Your task to perform on an android device: change the clock style Image 0: 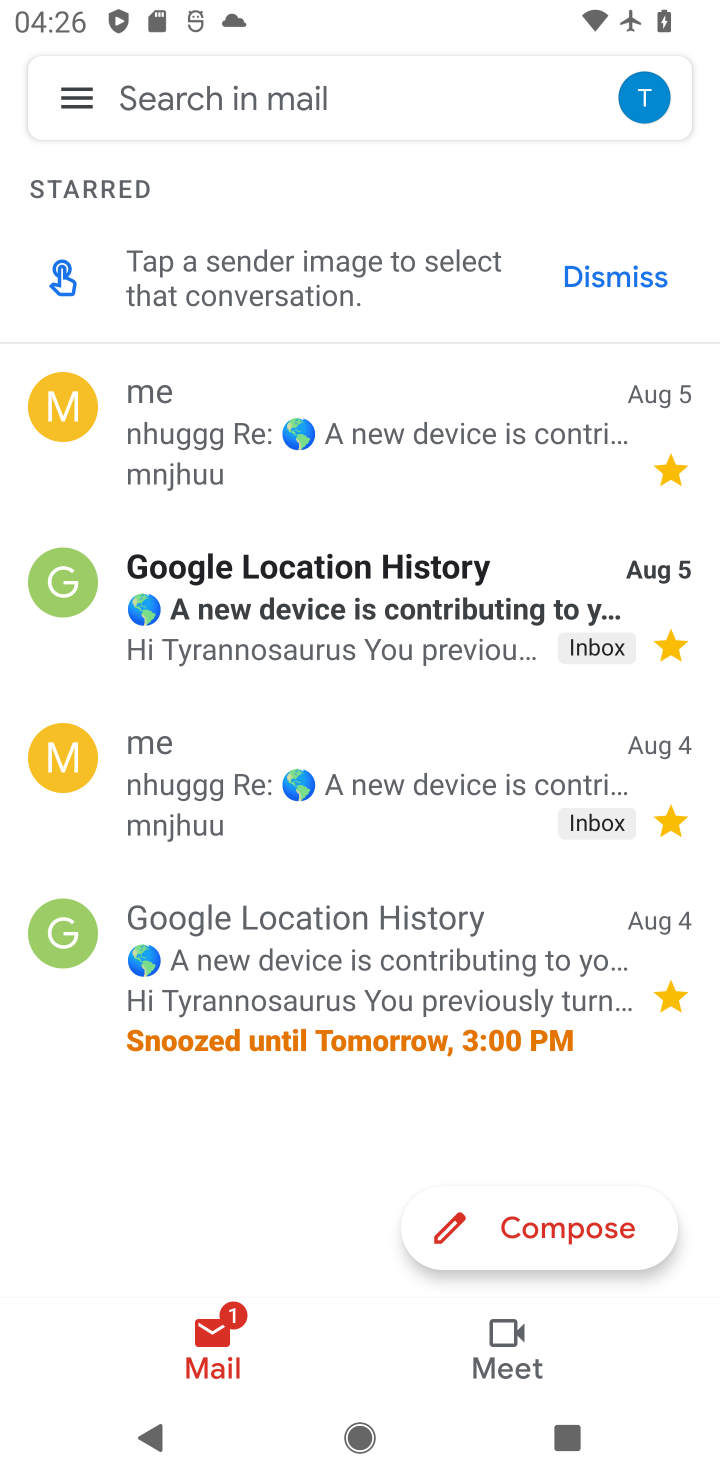
Step 0: press home button
Your task to perform on an android device: change the clock style Image 1: 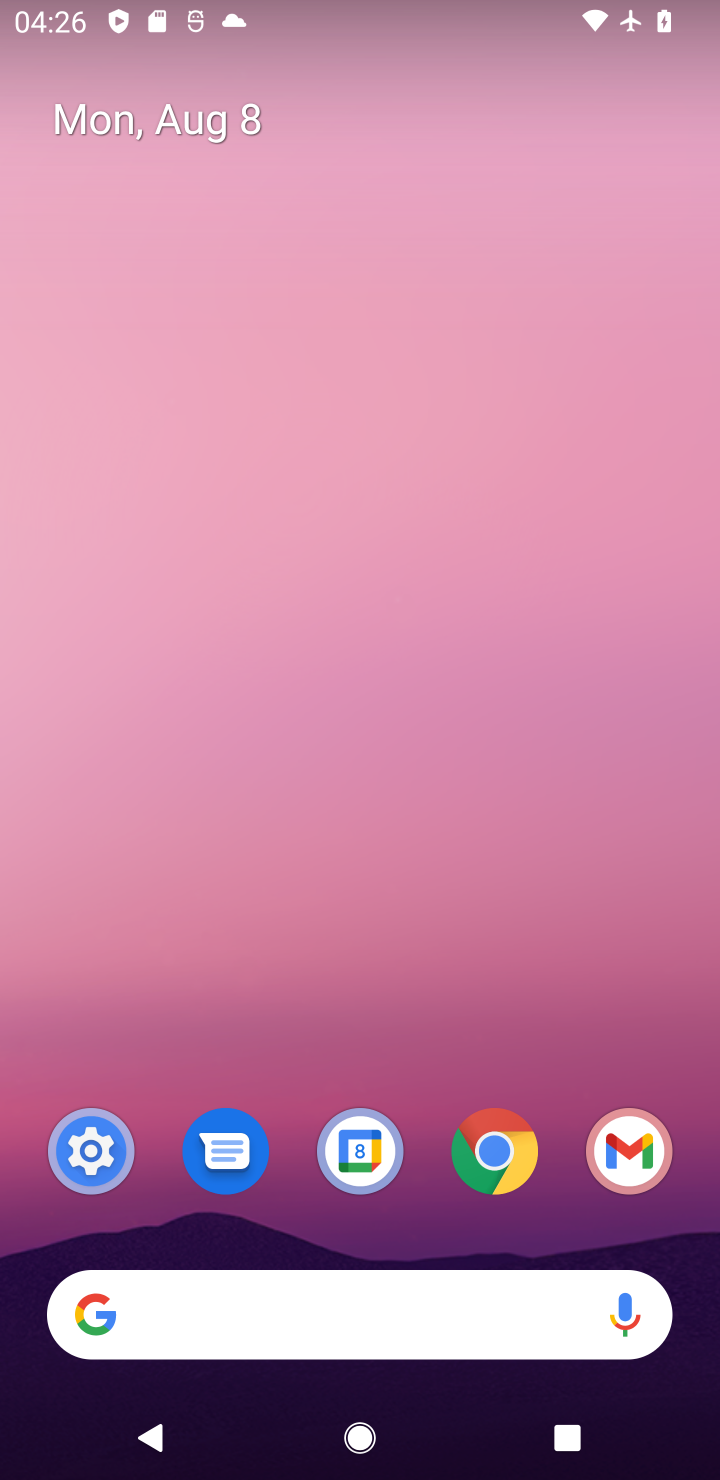
Step 1: drag from (347, 804) to (328, 300)
Your task to perform on an android device: change the clock style Image 2: 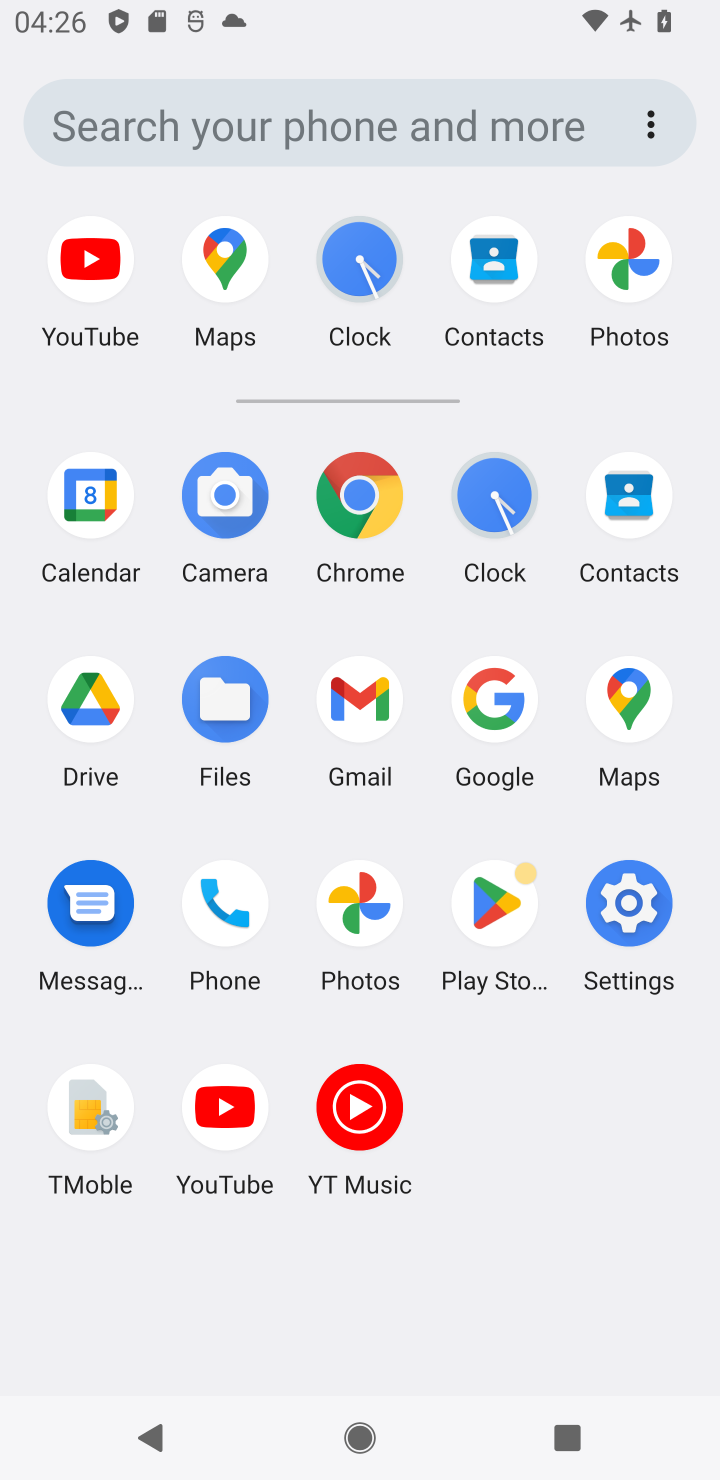
Step 2: click (328, 300)
Your task to perform on an android device: change the clock style Image 3: 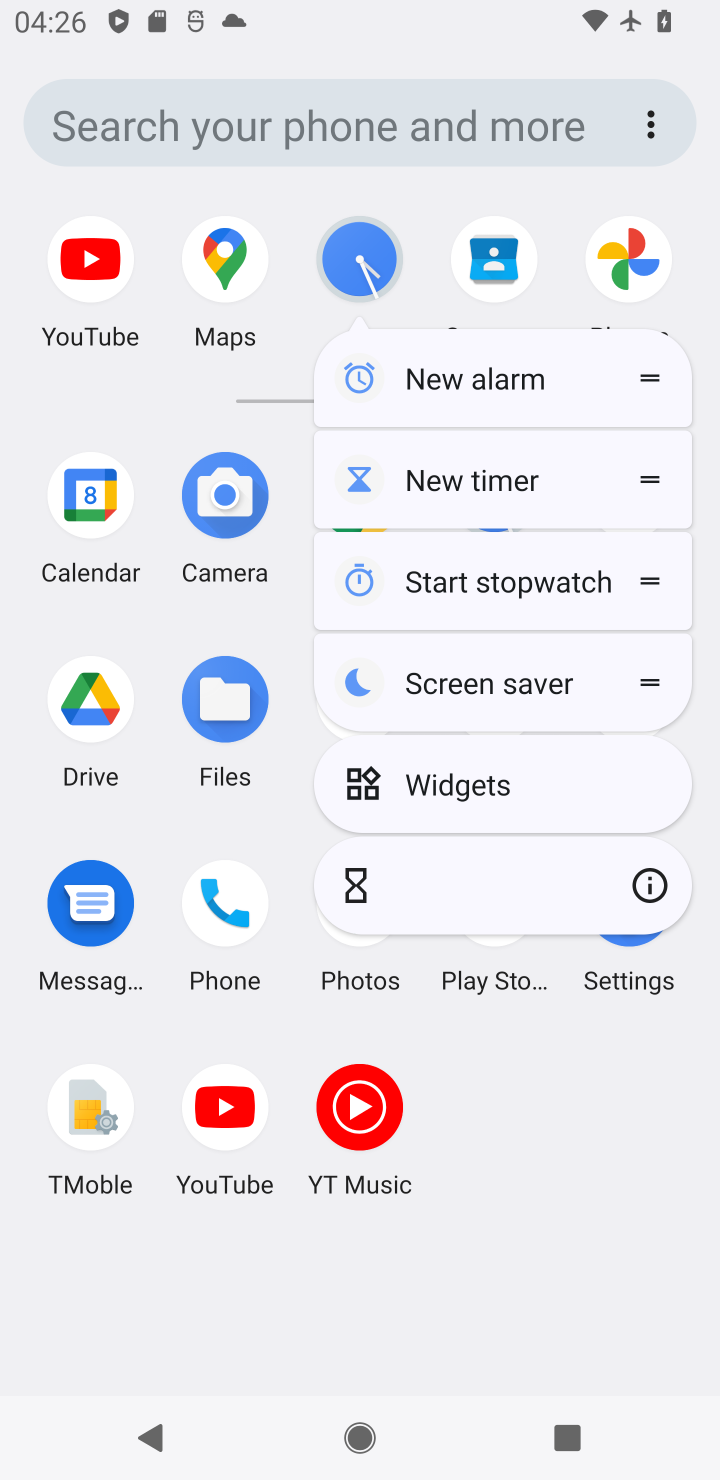
Step 3: click (359, 289)
Your task to perform on an android device: change the clock style Image 4: 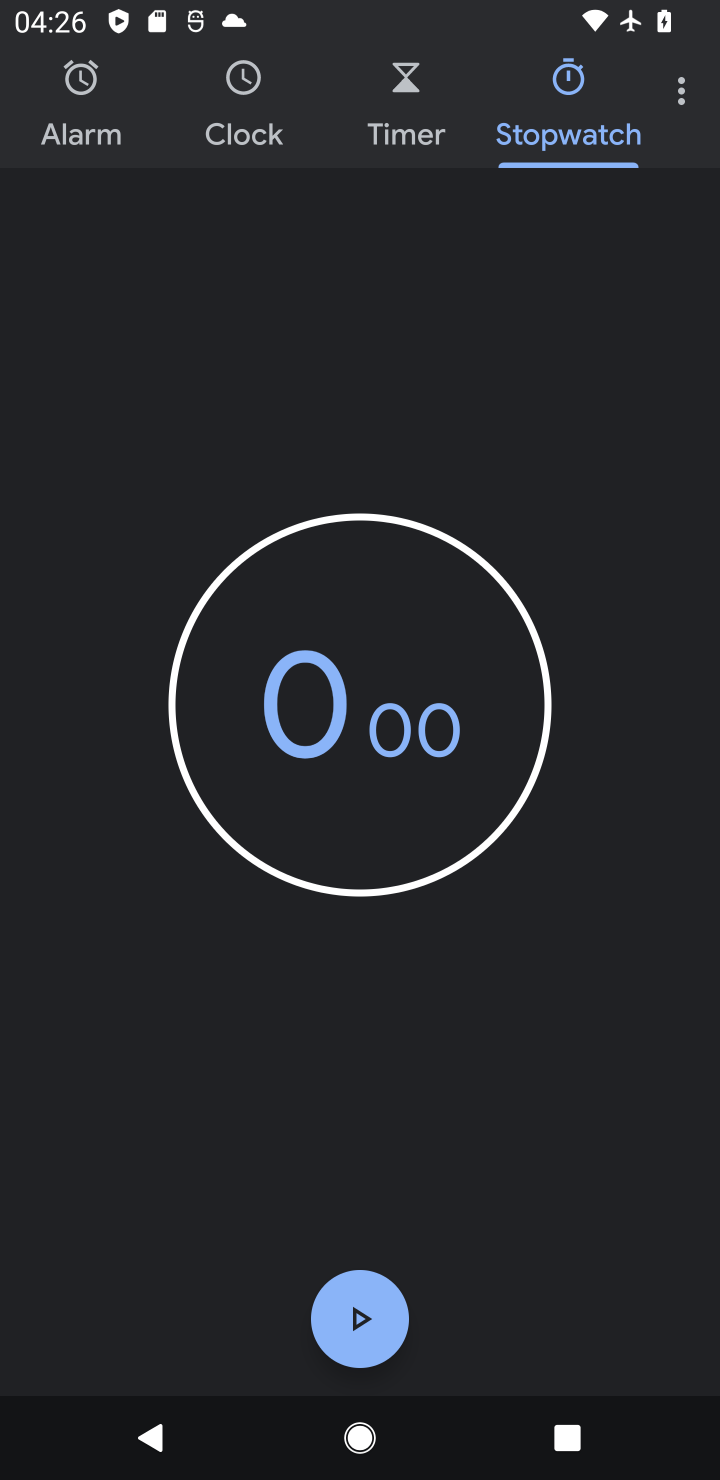
Step 4: click (671, 93)
Your task to perform on an android device: change the clock style Image 5: 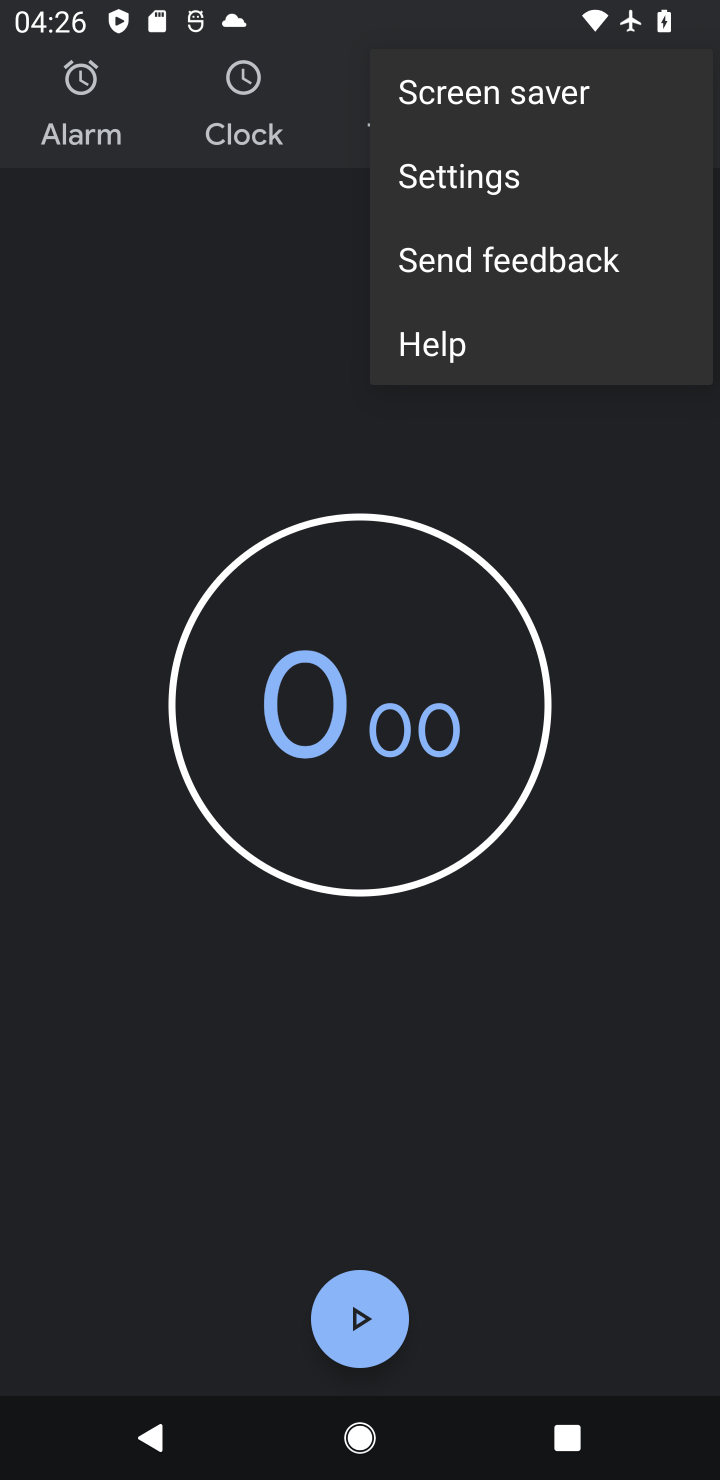
Step 5: click (547, 178)
Your task to perform on an android device: change the clock style Image 6: 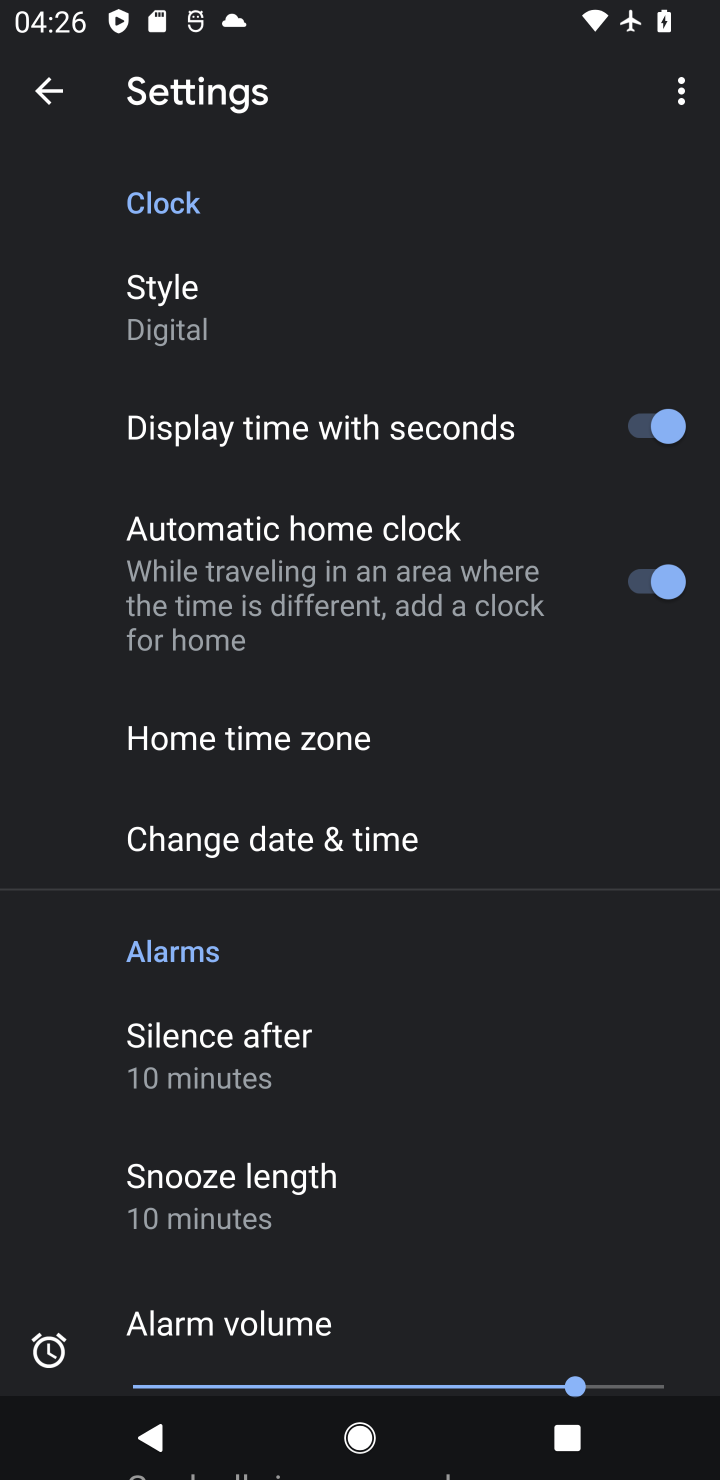
Step 6: click (207, 281)
Your task to perform on an android device: change the clock style Image 7: 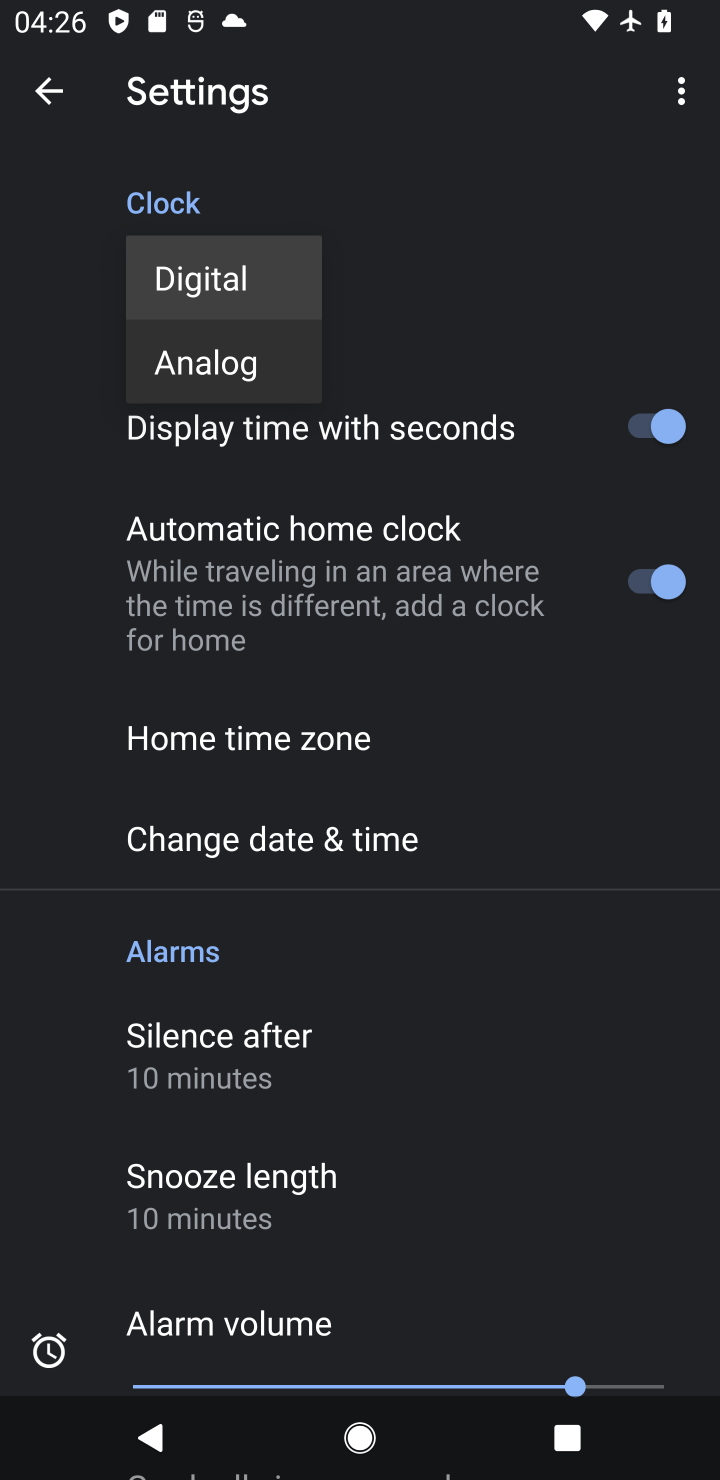
Step 7: click (188, 373)
Your task to perform on an android device: change the clock style Image 8: 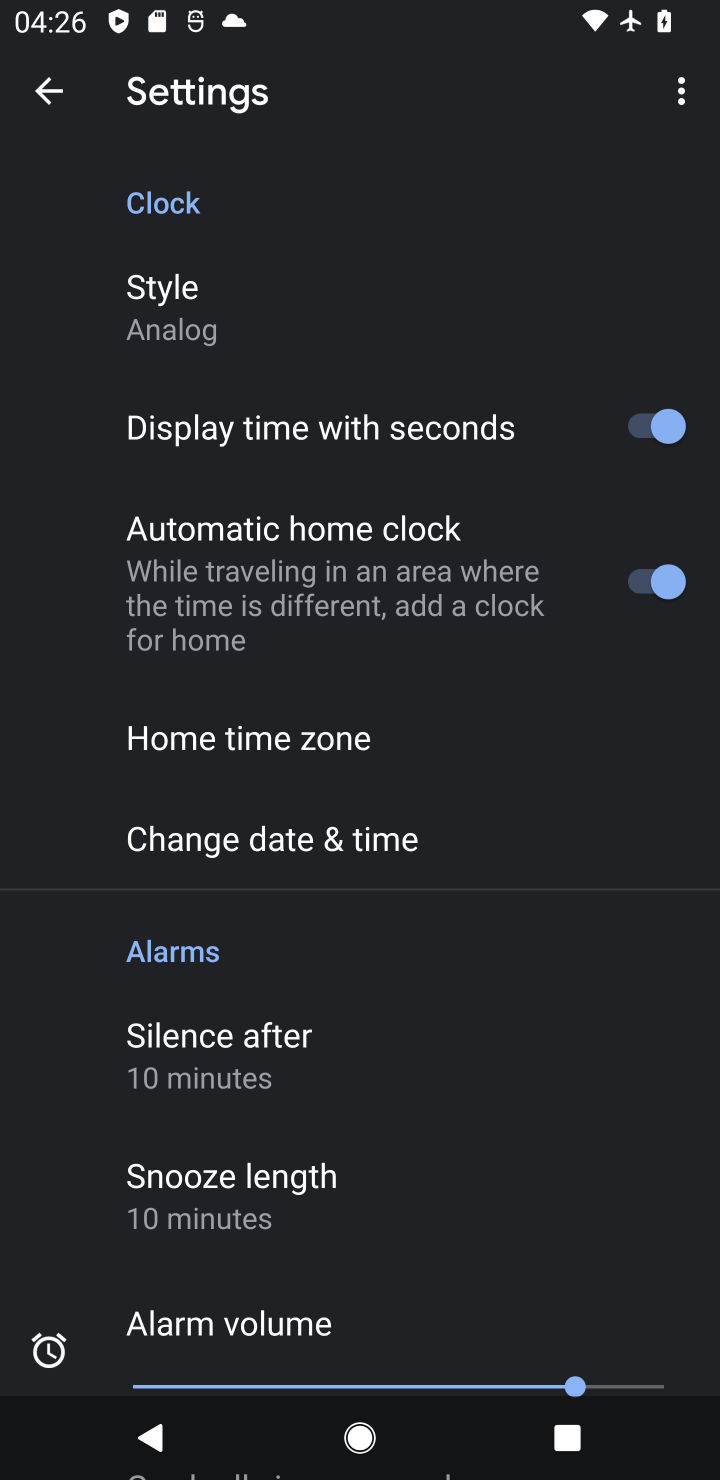
Step 8: task complete